Your task to perform on an android device: Open Chrome and go to the settings page Image 0: 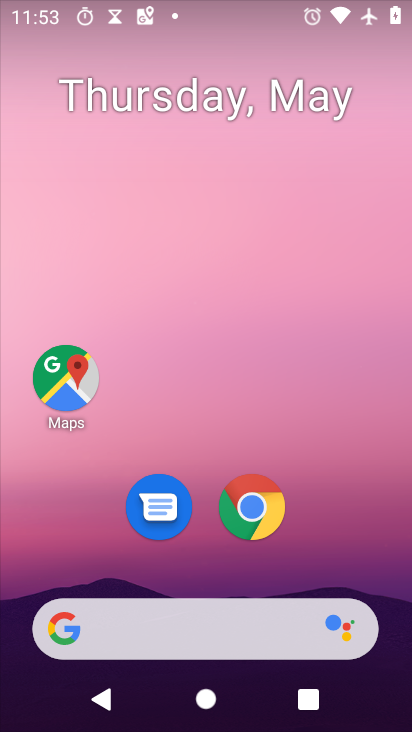
Step 0: drag from (346, 548) to (241, 1)
Your task to perform on an android device: Open Chrome and go to the settings page Image 1: 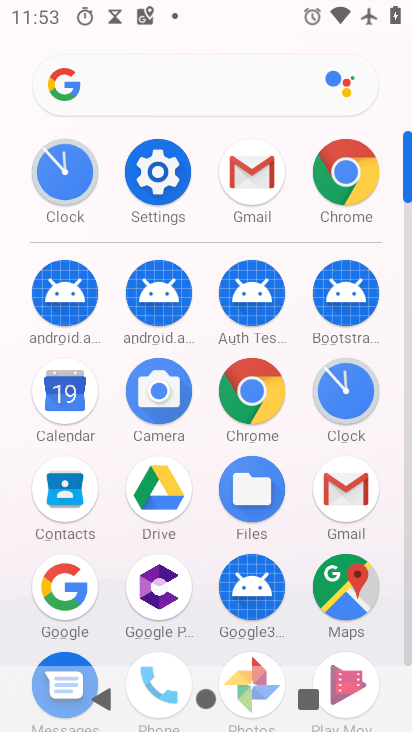
Step 1: drag from (17, 513) to (15, 176)
Your task to perform on an android device: Open Chrome and go to the settings page Image 2: 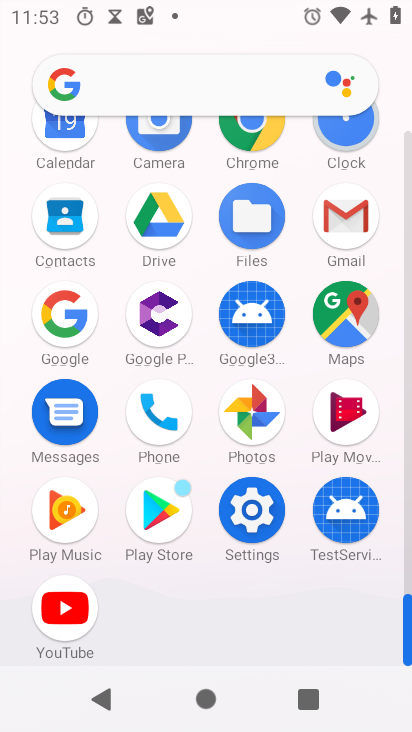
Step 2: drag from (17, 167) to (12, 403)
Your task to perform on an android device: Open Chrome and go to the settings page Image 3: 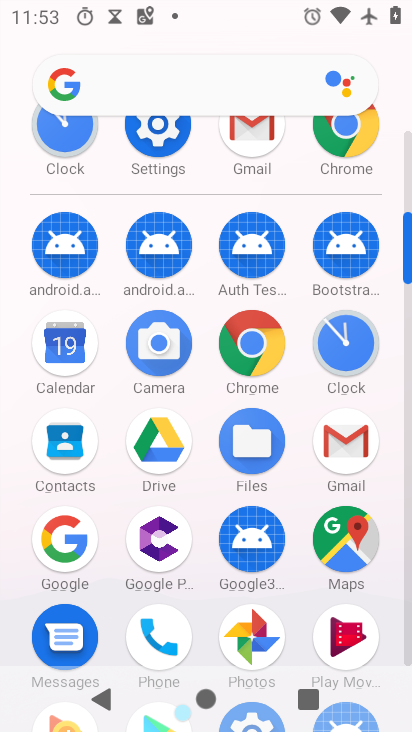
Step 3: click (260, 332)
Your task to perform on an android device: Open Chrome and go to the settings page Image 4: 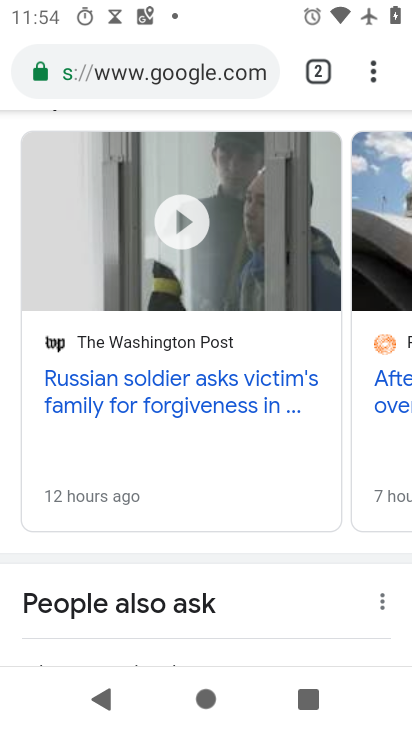
Step 4: task complete